Your task to perform on an android device: Do I have any events this weekend? Image 0: 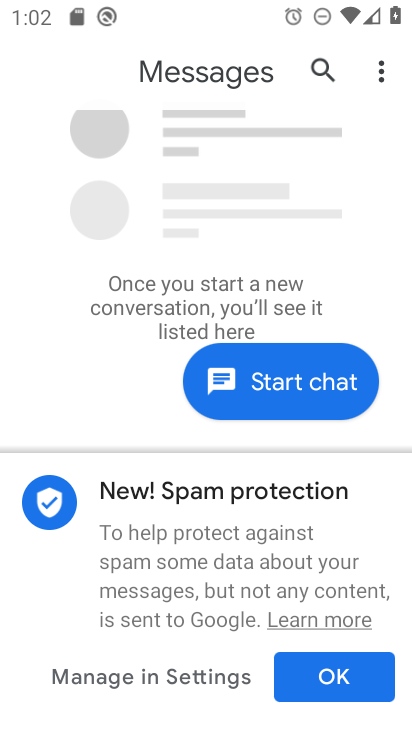
Step 0: press home button
Your task to perform on an android device: Do I have any events this weekend? Image 1: 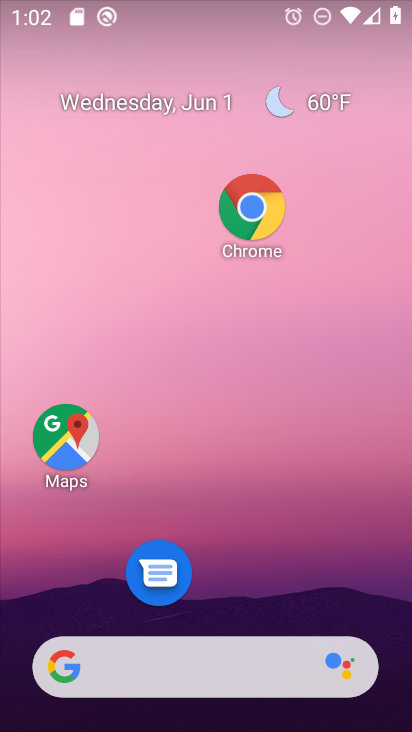
Step 1: drag from (225, 588) to (158, 200)
Your task to perform on an android device: Do I have any events this weekend? Image 2: 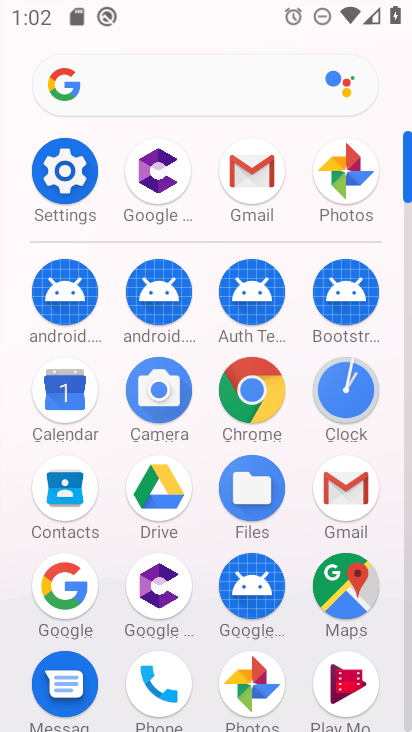
Step 2: click (83, 381)
Your task to perform on an android device: Do I have any events this weekend? Image 3: 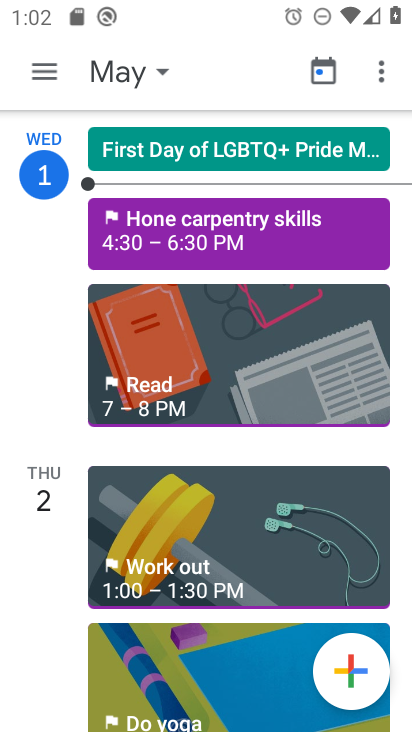
Step 3: click (154, 69)
Your task to perform on an android device: Do I have any events this weekend? Image 4: 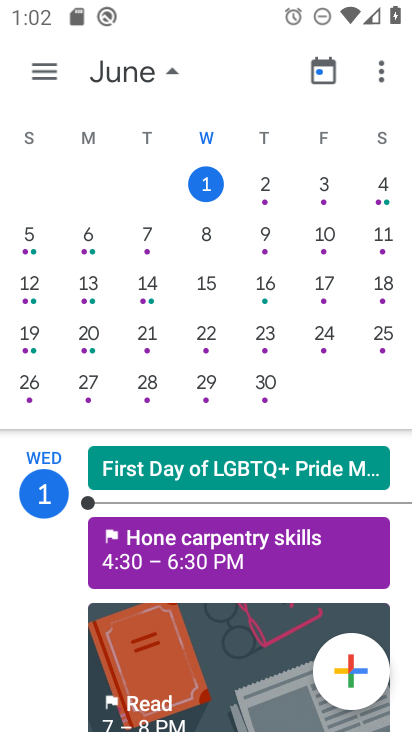
Step 4: click (374, 183)
Your task to perform on an android device: Do I have any events this weekend? Image 5: 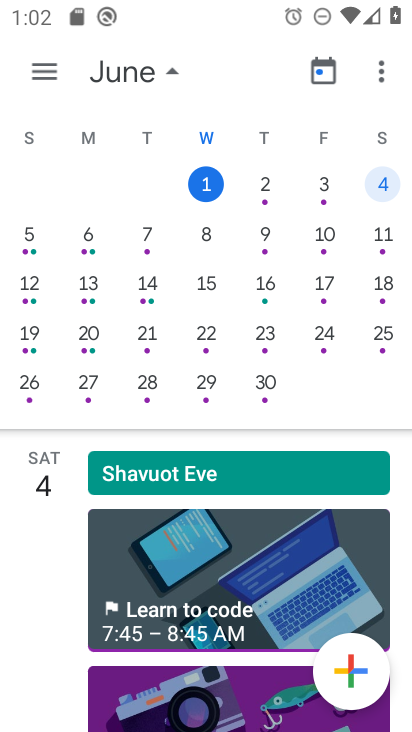
Step 5: task complete